Your task to perform on an android device: Do I have any events this weekend? Image 0: 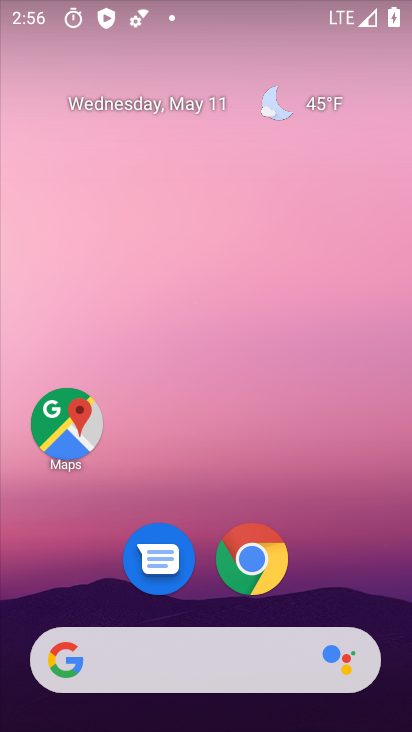
Step 0: click (142, 103)
Your task to perform on an android device: Do I have any events this weekend? Image 1: 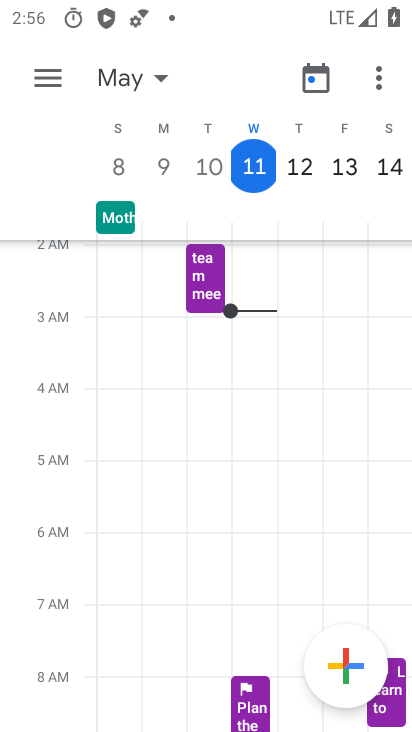
Step 1: task complete